Your task to perform on an android device: make emails show in primary in the gmail app Image 0: 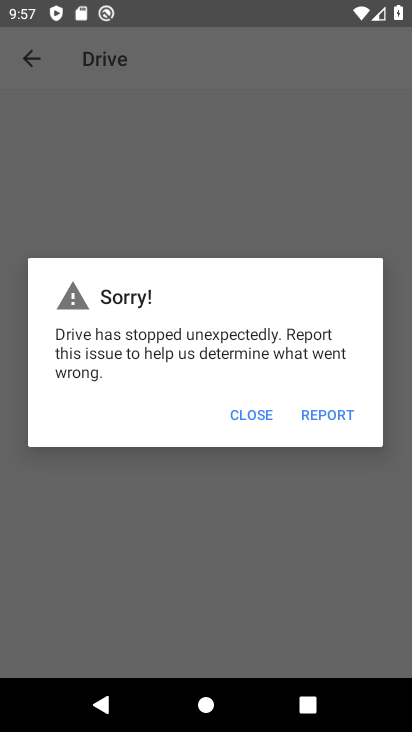
Step 0: press home button
Your task to perform on an android device: make emails show in primary in the gmail app Image 1: 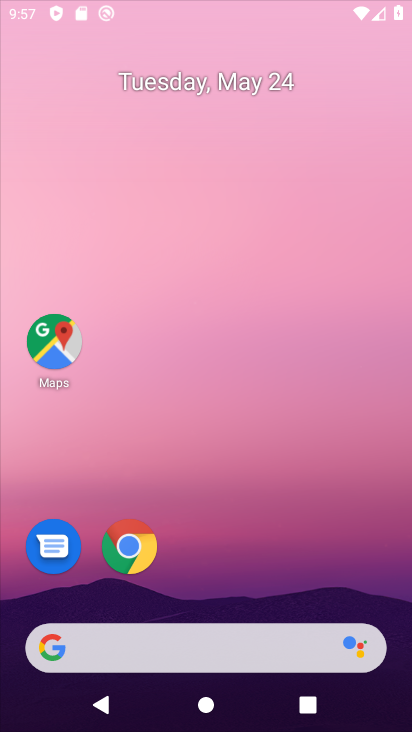
Step 1: drag from (263, 492) to (255, 63)
Your task to perform on an android device: make emails show in primary in the gmail app Image 2: 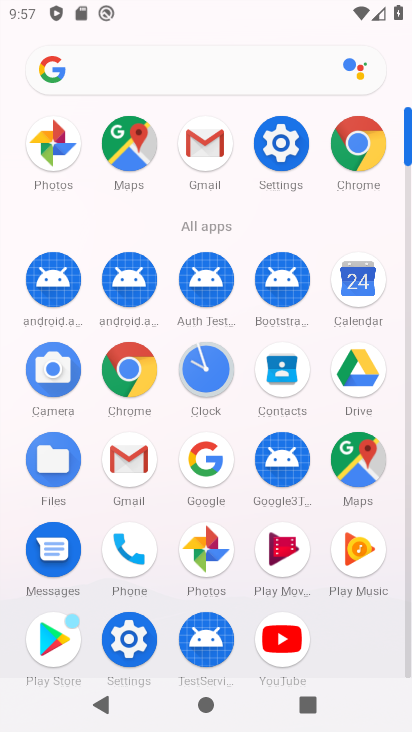
Step 2: click (197, 144)
Your task to perform on an android device: make emails show in primary in the gmail app Image 3: 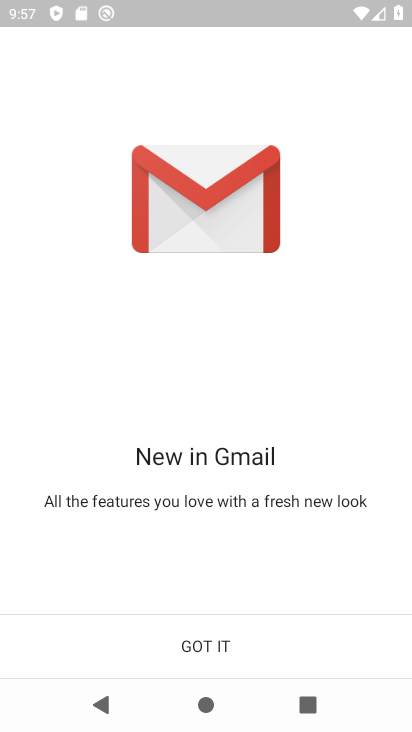
Step 3: click (182, 634)
Your task to perform on an android device: make emails show in primary in the gmail app Image 4: 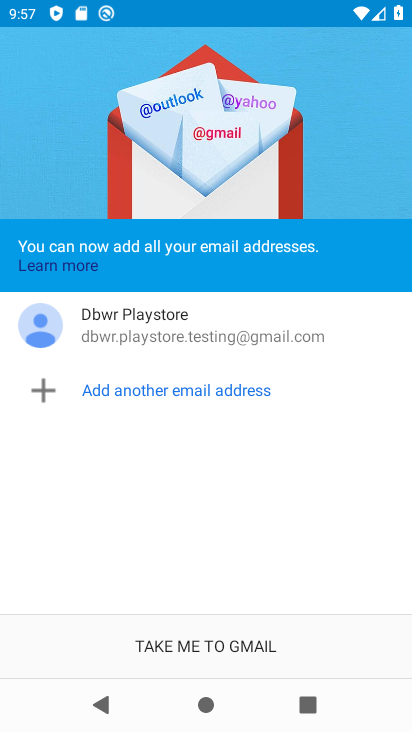
Step 4: click (164, 656)
Your task to perform on an android device: make emails show in primary in the gmail app Image 5: 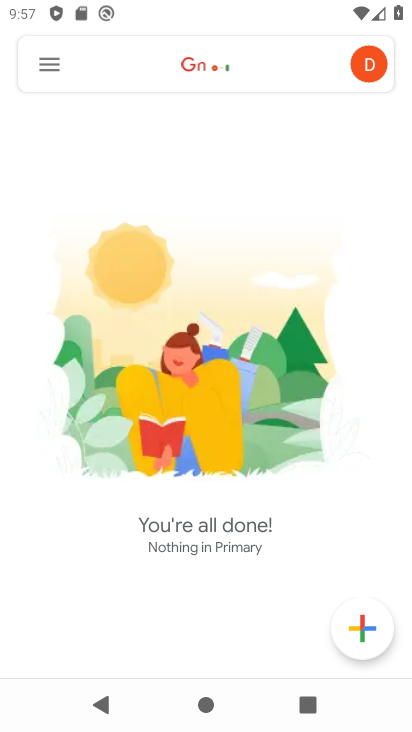
Step 5: click (49, 58)
Your task to perform on an android device: make emails show in primary in the gmail app Image 6: 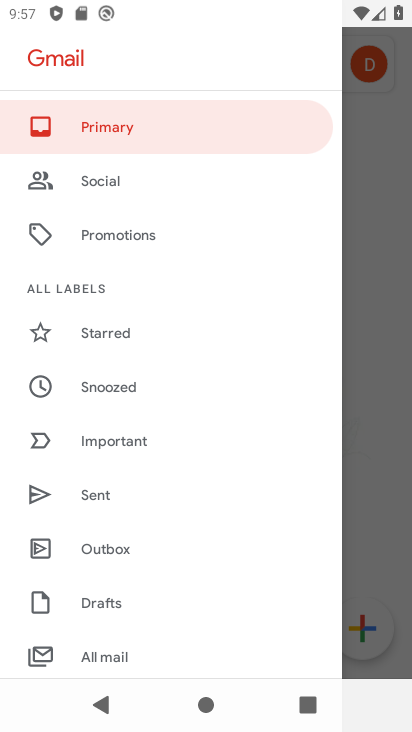
Step 6: drag from (142, 649) to (217, 245)
Your task to perform on an android device: make emails show in primary in the gmail app Image 7: 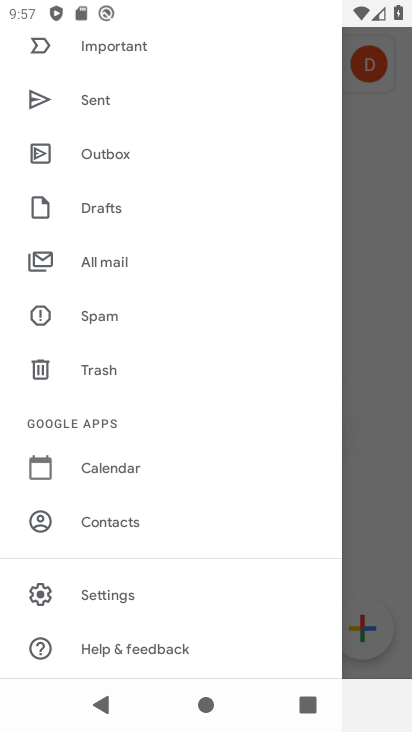
Step 7: click (120, 595)
Your task to perform on an android device: make emails show in primary in the gmail app Image 8: 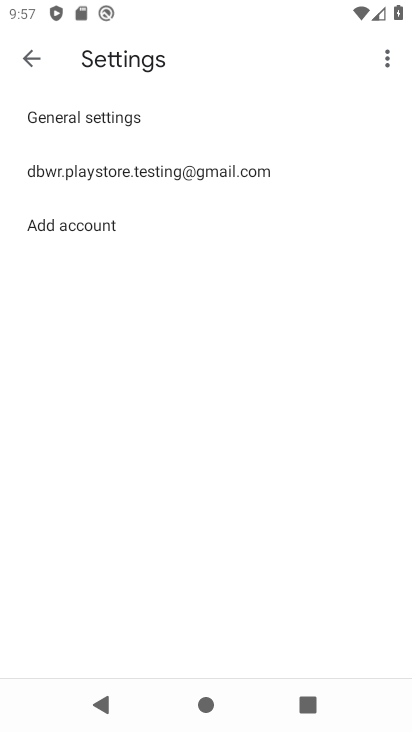
Step 8: click (161, 179)
Your task to perform on an android device: make emails show in primary in the gmail app Image 9: 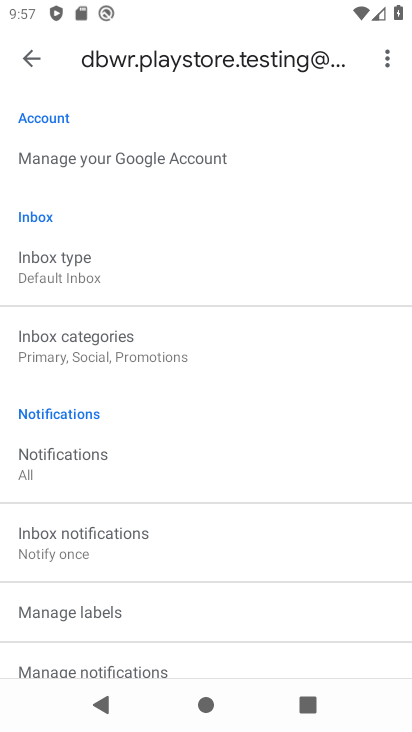
Step 9: click (86, 342)
Your task to perform on an android device: make emails show in primary in the gmail app Image 10: 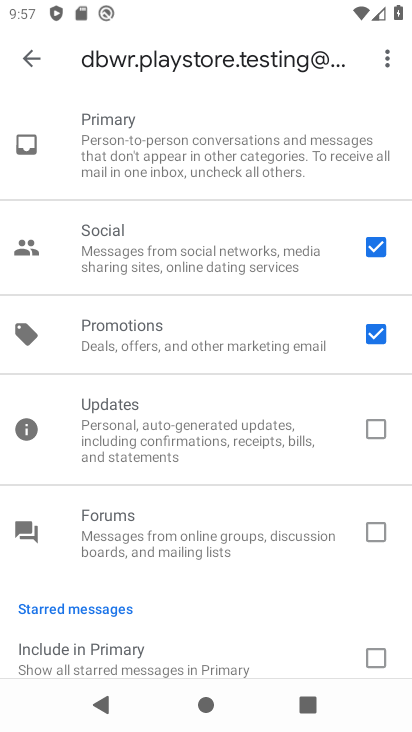
Step 10: task complete